Your task to perform on an android device: change keyboard looks Image 0: 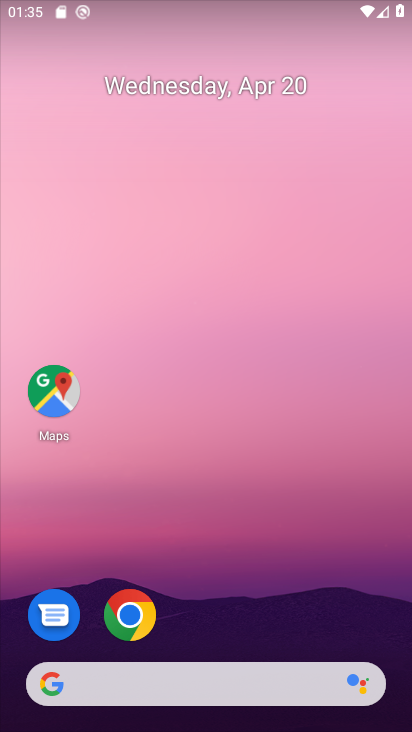
Step 0: drag from (366, 540) to (326, 210)
Your task to perform on an android device: change keyboard looks Image 1: 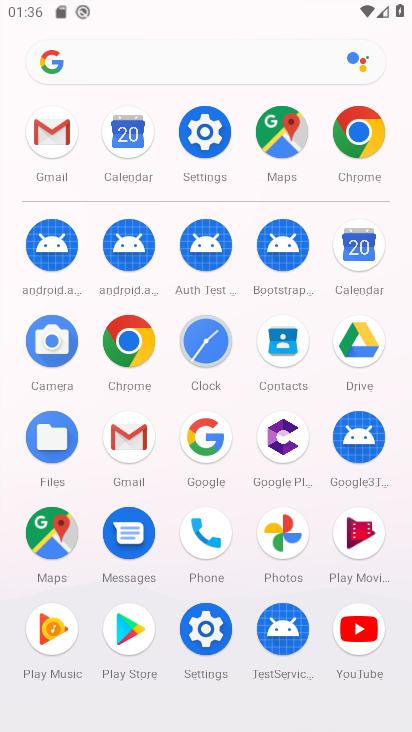
Step 1: click (206, 631)
Your task to perform on an android device: change keyboard looks Image 2: 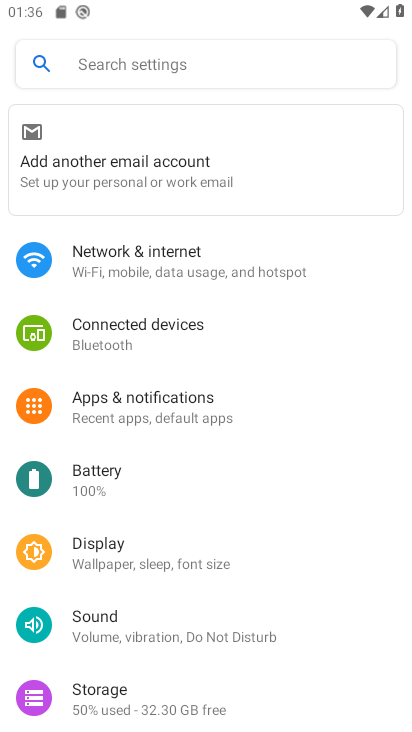
Step 2: drag from (300, 677) to (307, 273)
Your task to perform on an android device: change keyboard looks Image 3: 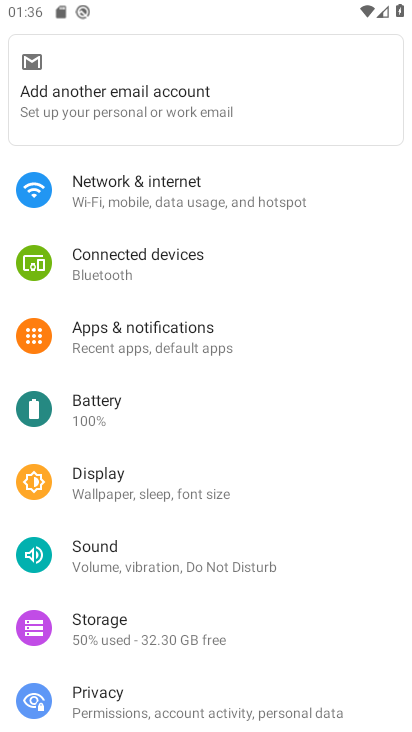
Step 3: drag from (380, 411) to (368, 200)
Your task to perform on an android device: change keyboard looks Image 4: 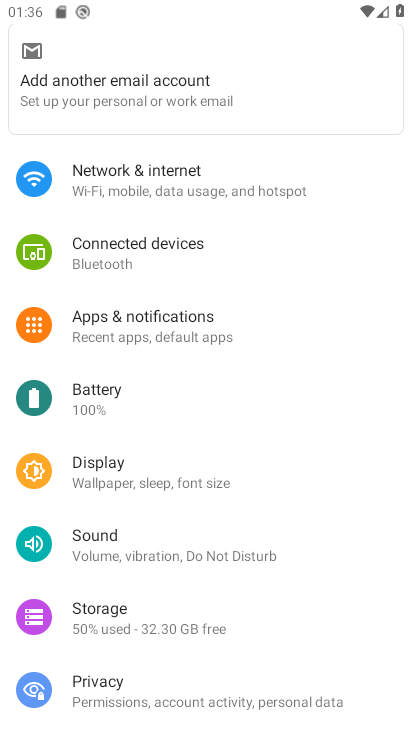
Step 4: drag from (339, 642) to (324, 150)
Your task to perform on an android device: change keyboard looks Image 5: 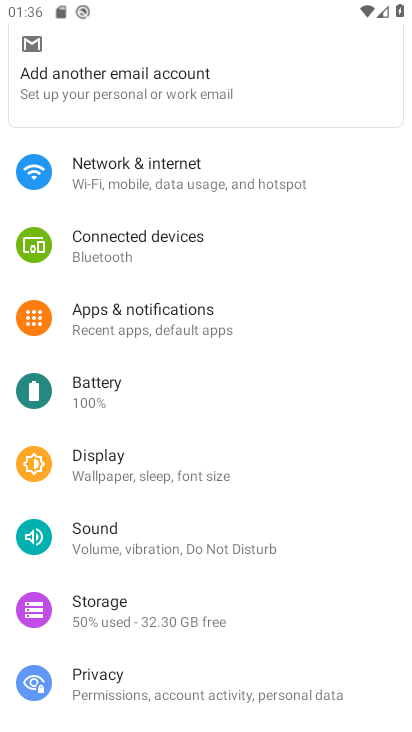
Step 5: click (370, 220)
Your task to perform on an android device: change keyboard looks Image 6: 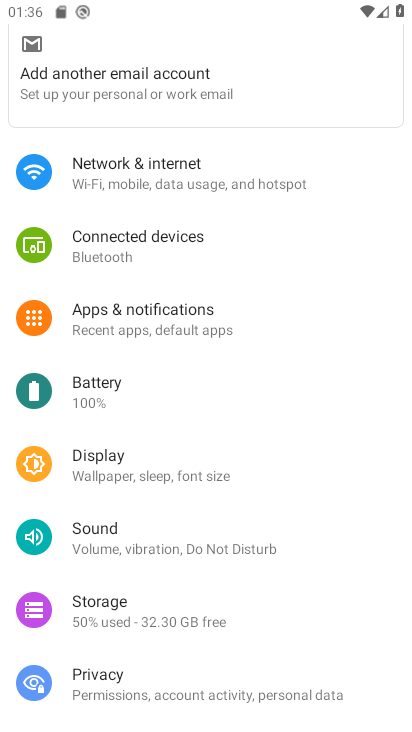
Step 6: drag from (360, 635) to (382, 266)
Your task to perform on an android device: change keyboard looks Image 7: 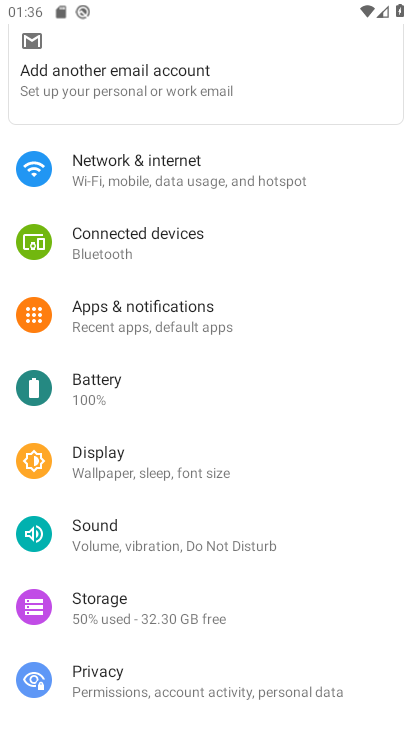
Step 7: drag from (356, 600) to (364, 326)
Your task to perform on an android device: change keyboard looks Image 8: 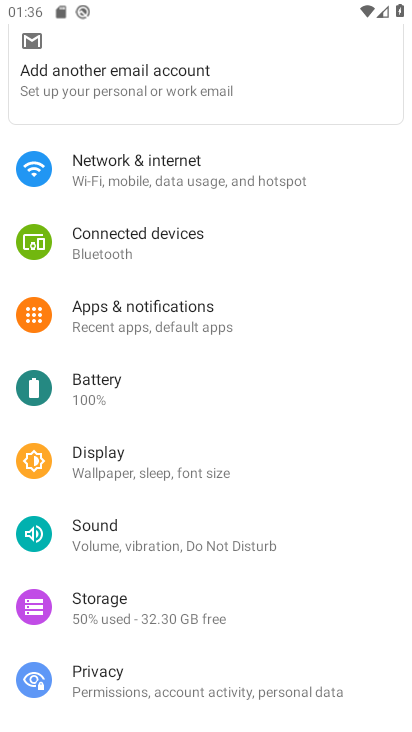
Step 8: drag from (330, 598) to (321, 227)
Your task to perform on an android device: change keyboard looks Image 9: 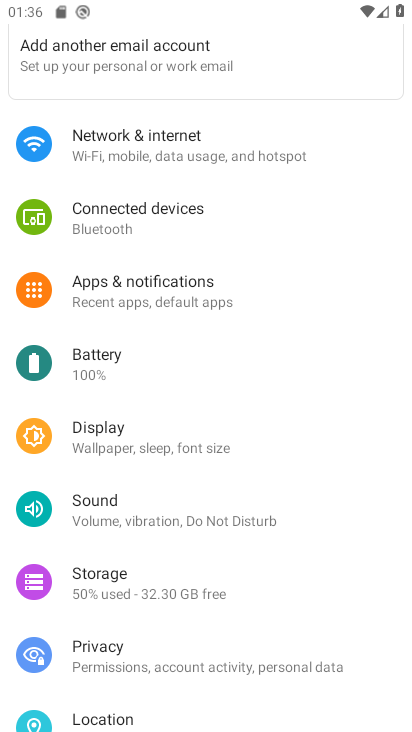
Step 9: drag from (359, 551) to (374, 252)
Your task to perform on an android device: change keyboard looks Image 10: 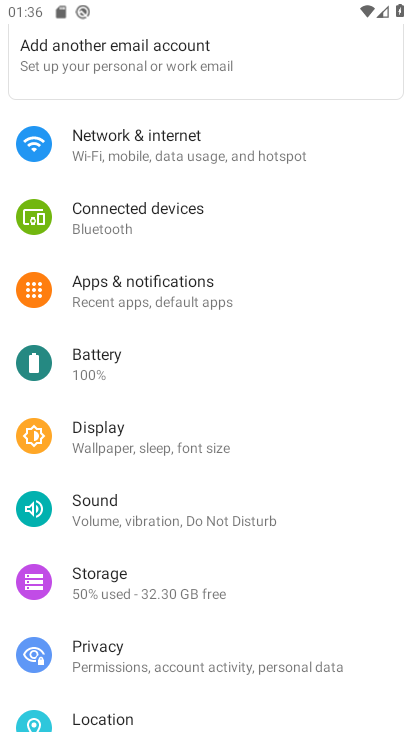
Step 10: drag from (350, 632) to (366, 74)
Your task to perform on an android device: change keyboard looks Image 11: 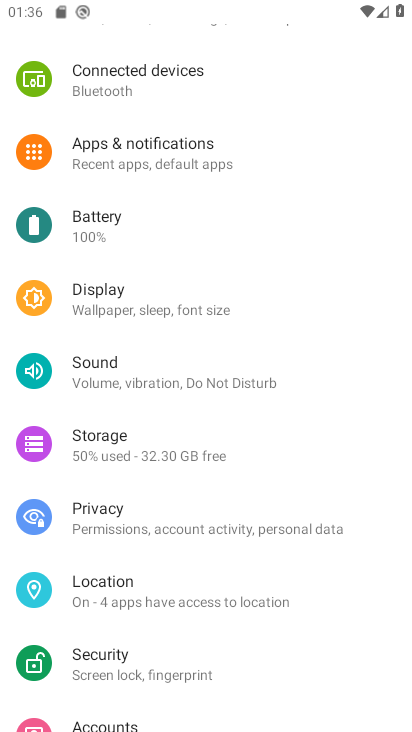
Step 11: drag from (366, 690) to (354, 304)
Your task to perform on an android device: change keyboard looks Image 12: 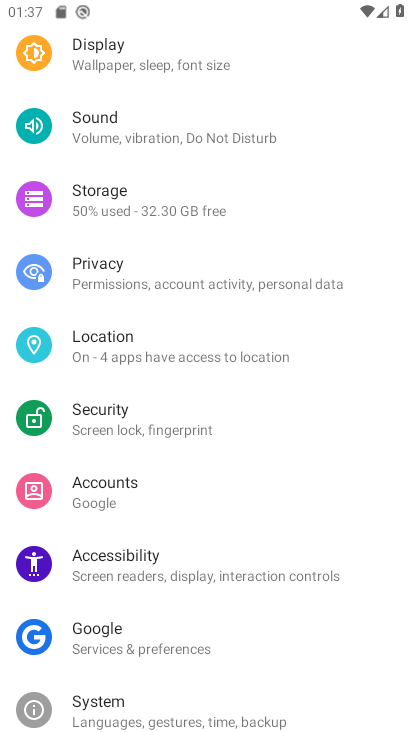
Step 12: drag from (366, 672) to (365, 332)
Your task to perform on an android device: change keyboard looks Image 13: 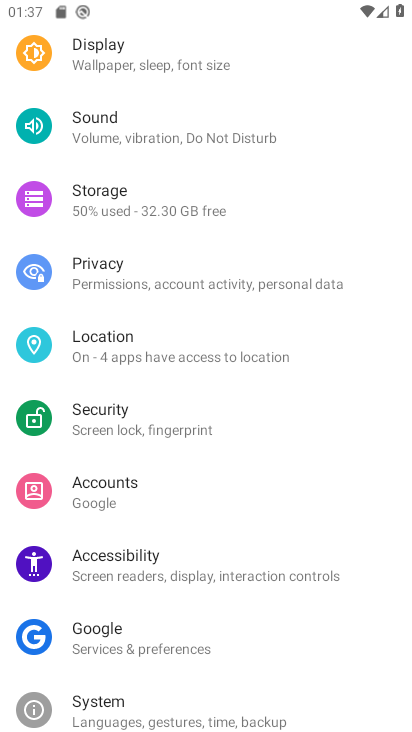
Step 13: drag from (352, 359) to (352, 274)
Your task to perform on an android device: change keyboard looks Image 14: 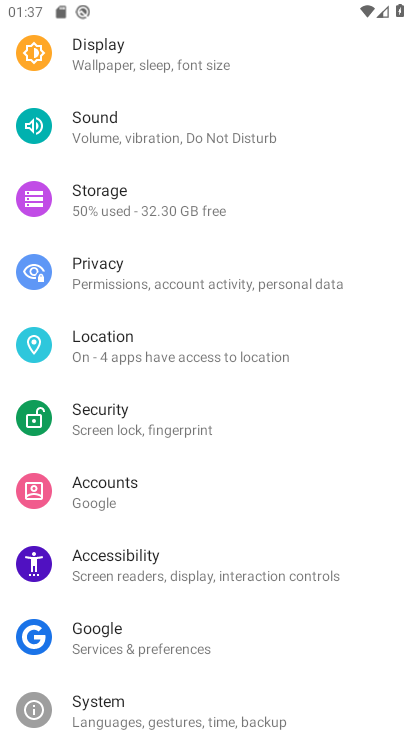
Step 14: click (96, 705)
Your task to perform on an android device: change keyboard looks Image 15: 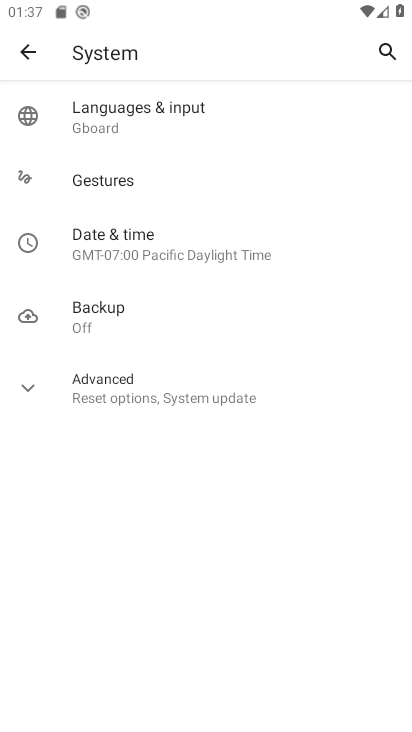
Step 15: click (100, 103)
Your task to perform on an android device: change keyboard looks Image 16: 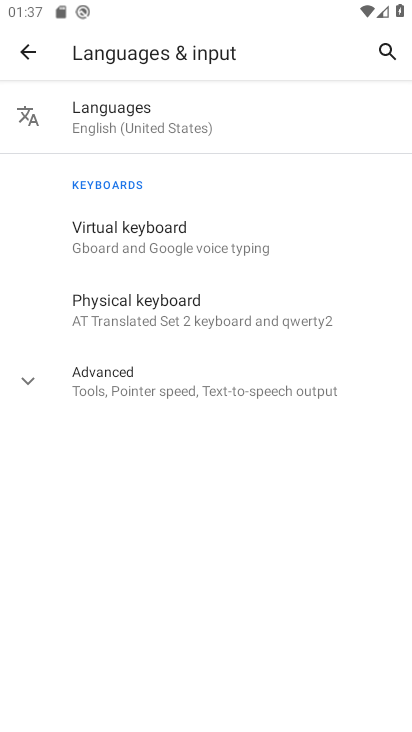
Step 16: click (97, 230)
Your task to perform on an android device: change keyboard looks Image 17: 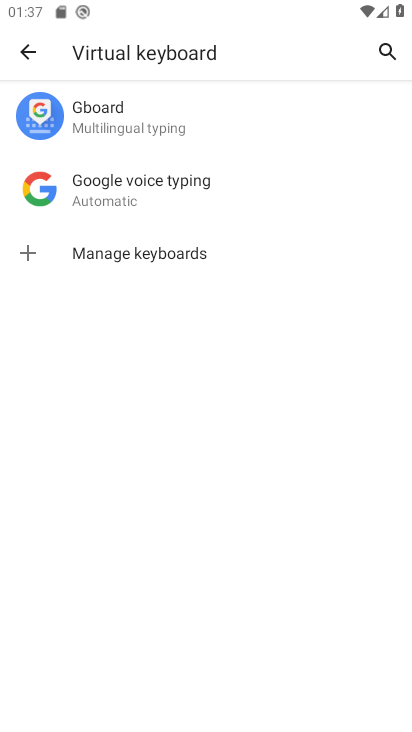
Step 17: click (95, 116)
Your task to perform on an android device: change keyboard looks Image 18: 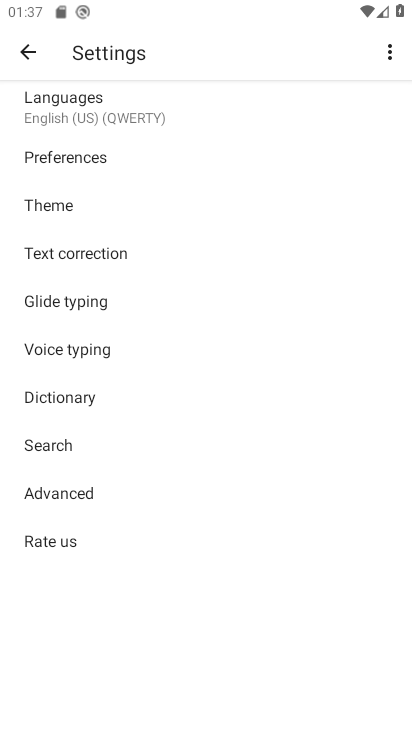
Step 18: click (49, 202)
Your task to perform on an android device: change keyboard looks Image 19: 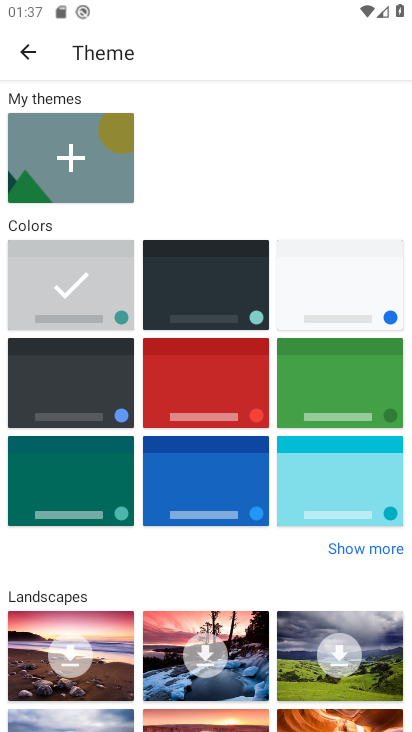
Step 19: click (64, 384)
Your task to perform on an android device: change keyboard looks Image 20: 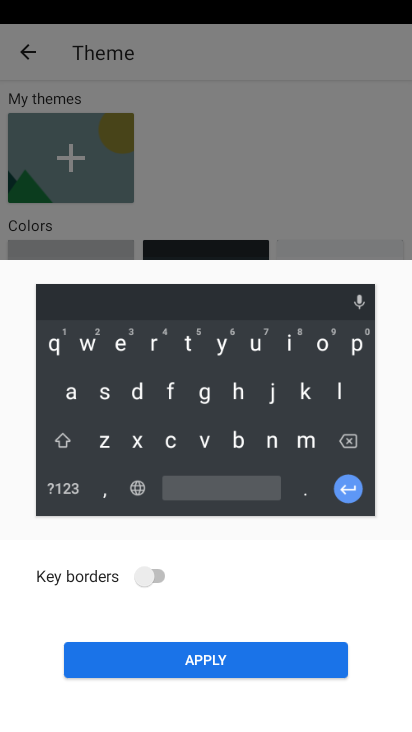
Step 20: click (159, 580)
Your task to perform on an android device: change keyboard looks Image 21: 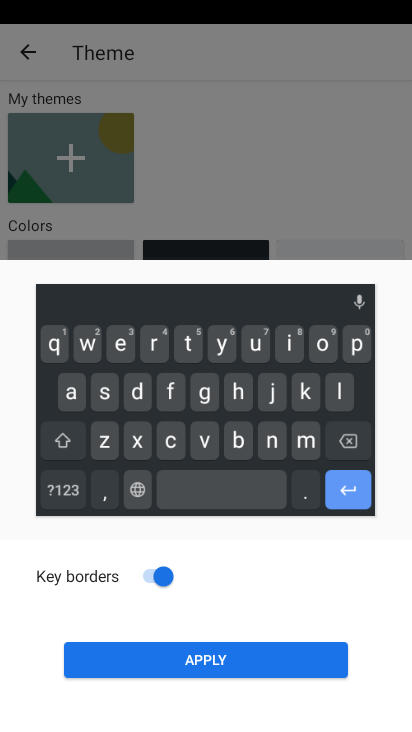
Step 21: click (190, 662)
Your task to perform on an android device: change keyboard looks Image 22: 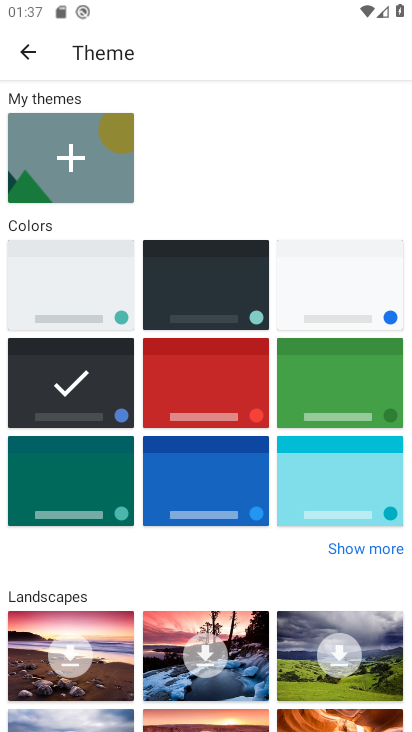
Step 22: task complete